Your task to perform on an android device: Open accessibility settings Image 0: 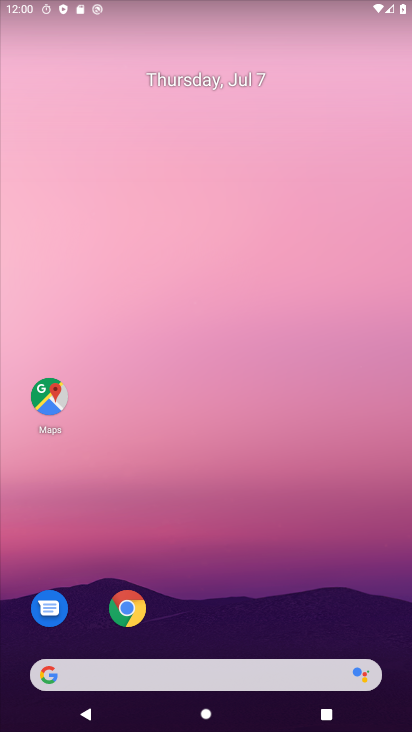
Step 0: drag from (138, 648) to (123, 81)
Your task to perform on an android device: Open accessibility settings Image 1: 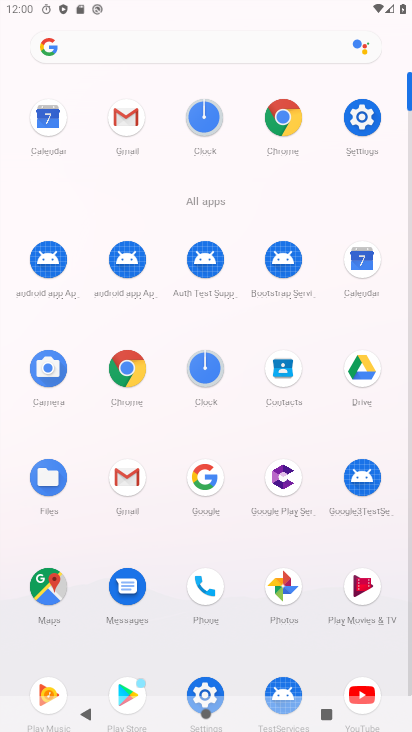
Step 1: click (347, 119)
Your task to perform on an android device: Open accessibility settings Image 2: 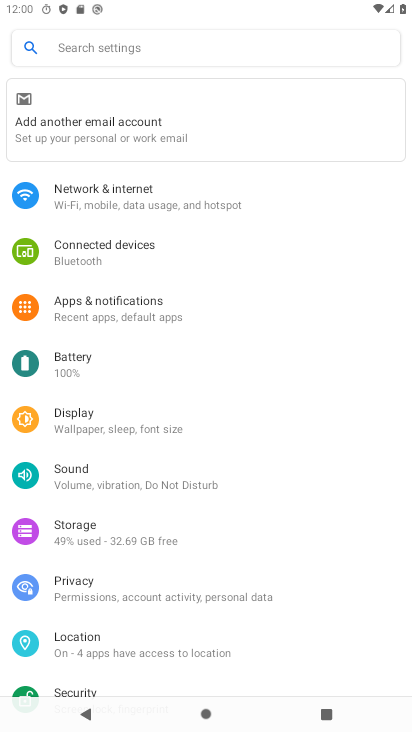
Step 2: drag from (112, 618) to (162, 152)
Your task to perform on an android device: Open accessibility settings Image 3: 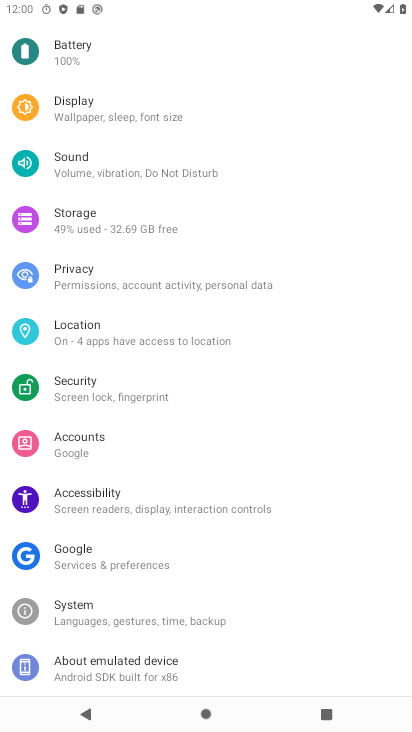
Step 3: click (136, 500)
Your task to perform on an android device: Open accessibility settings Image 4: 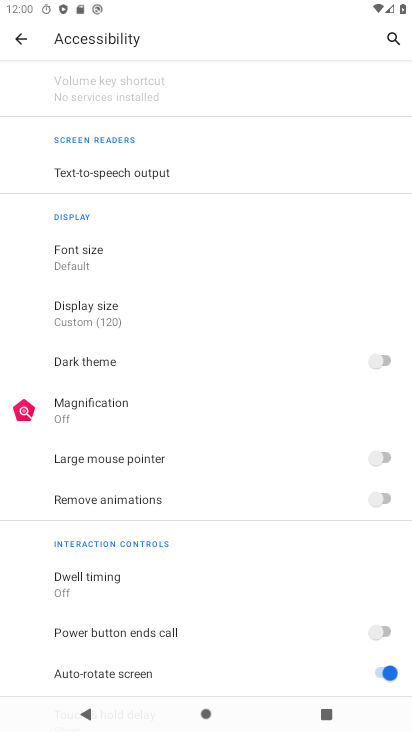
Step 4: task complete